Your task to perform on an android device: snooze an email in the gmail app Image 0: 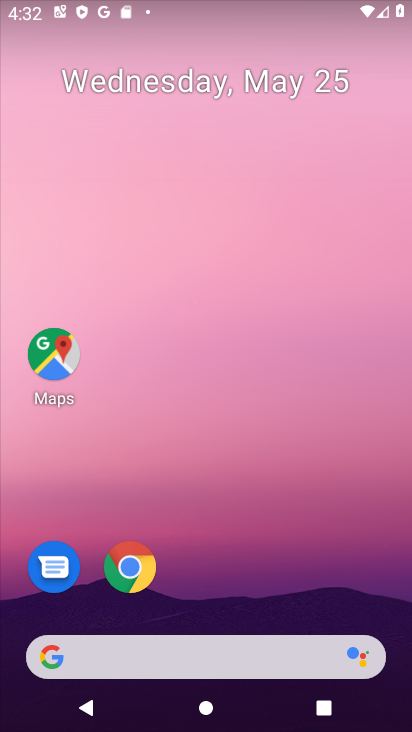
Step 0: drag from (224, 478) to (231, 18)
Your task to perform on an android device: snooze an email in the gmail app Image 1: 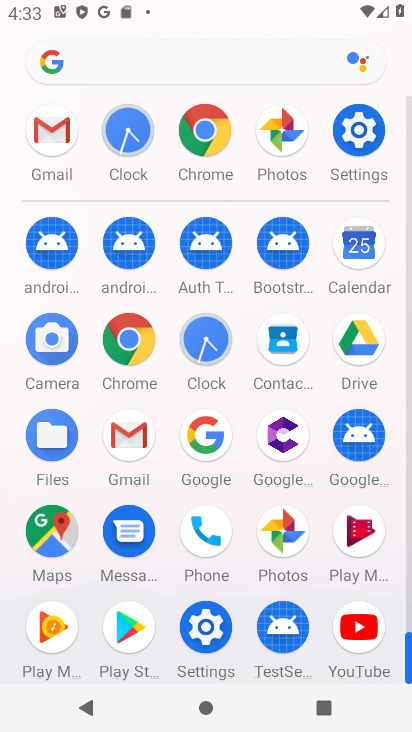
Step 1: drag from (5, 557) to (21, 276)
Your task to perform on an android device: snooze an email in the gmail app Image 2: 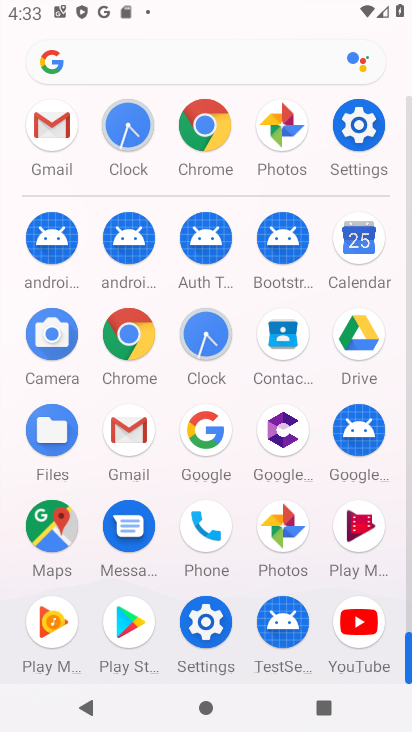
Step 2: click (127, 427)
Your task to perform on an android device: snooze an email in the gmail app Image 3: 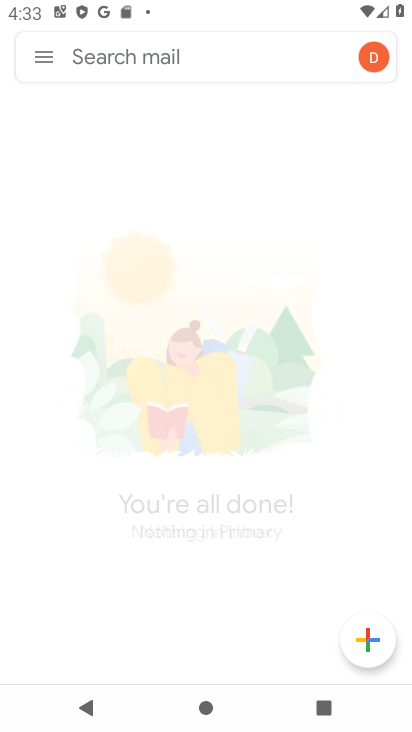
Step 3: click (46, 47)
Your task to perform on an android device: snooze an email in the gmail app Image 4: 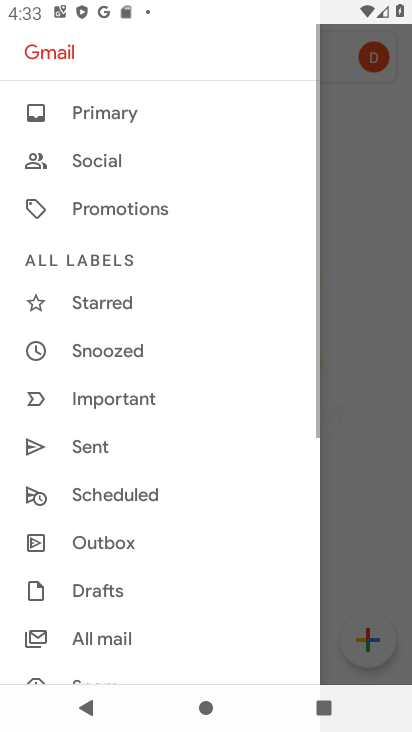
Step 4: drag from (215, 202) to (216, 502)
Your task to perform on an android device: snooze an email in the gmail app Image 5: 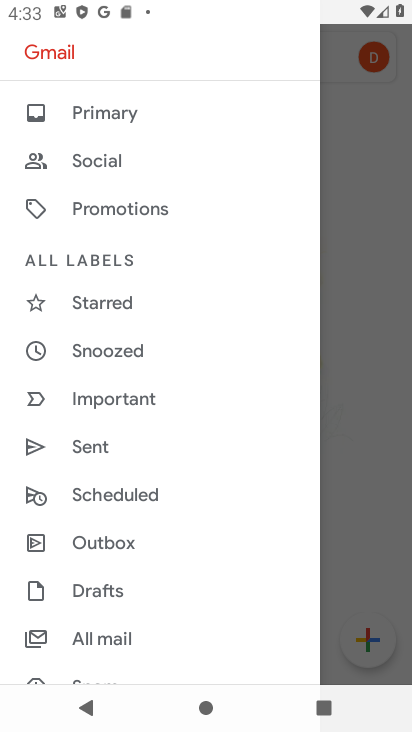
Step 5: click (145, 348)
Your task to perform on an android device: snooze an email in the gmail app Image 6: 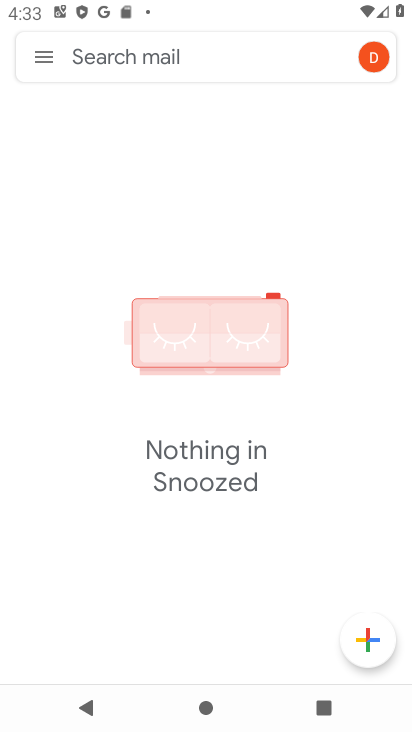
Step 6: task complete